Your task to perform on an android device: find which apps use the phone's location Image 0: 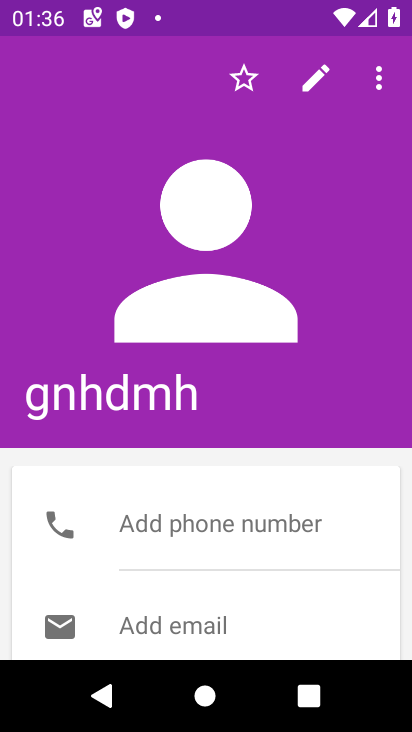
Step 0: press home button
Your task to perform on an android device: find which apps use the phone's location Image 1: 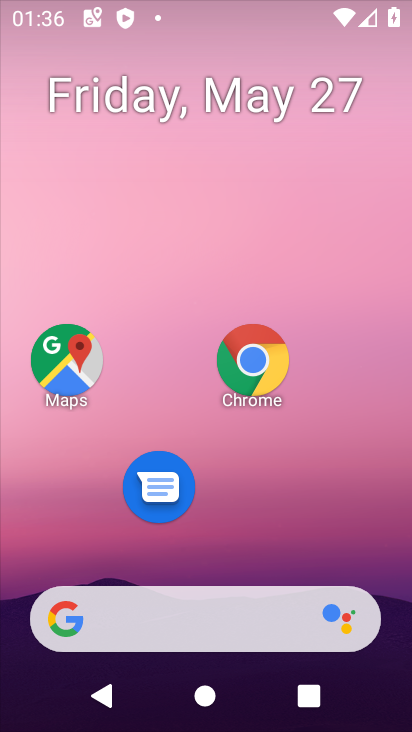
Step 1: drag from (239, 434) to (242, 91)
Your task to perform on an android device: find which apps use the phone's location Image 2: 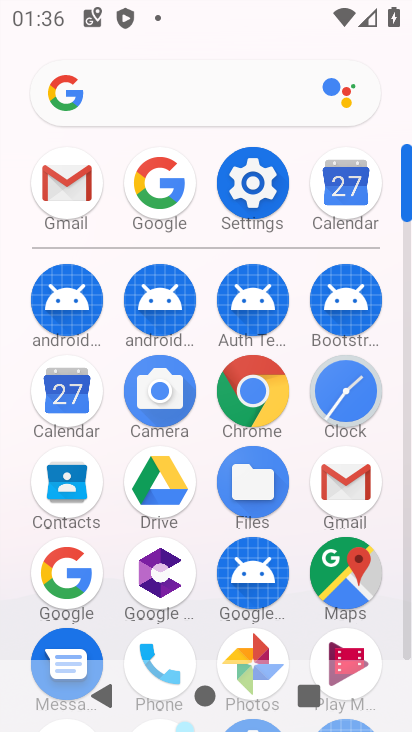
Step 2: click (256, 190)
Your task to perform on an android device: find which apps use the phone's location Image 3: 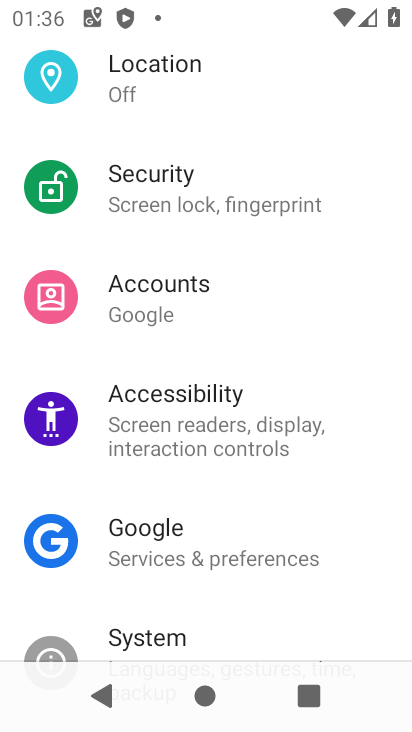
Step 3: click (160, 87)
Your task to perform on an android device: find which apps use the phone's location Image 4: 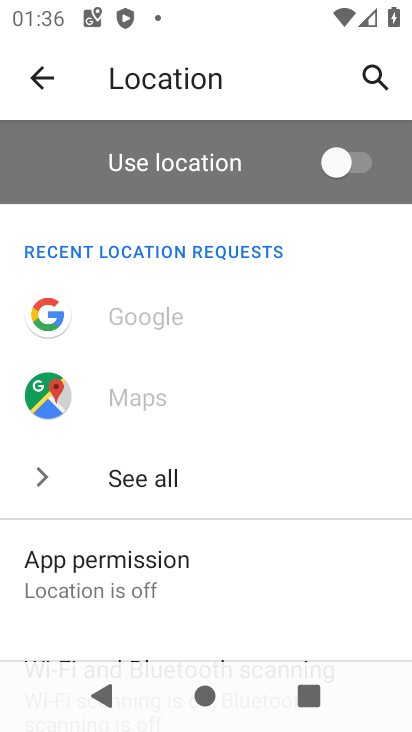
Step 4: drag from (282, 522) to (249, 251)
Your task to perform on an android device: find which apps use the phone's location Image 5: 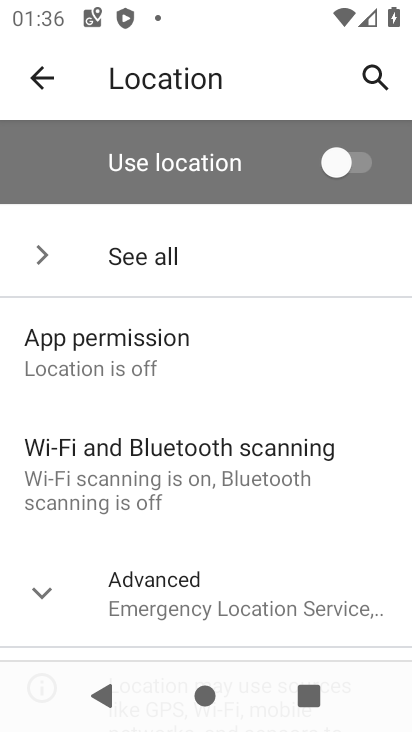
Step 5: click (153, 356)
Your task to perform on an android device: find which apps use the phone's location Image 6: 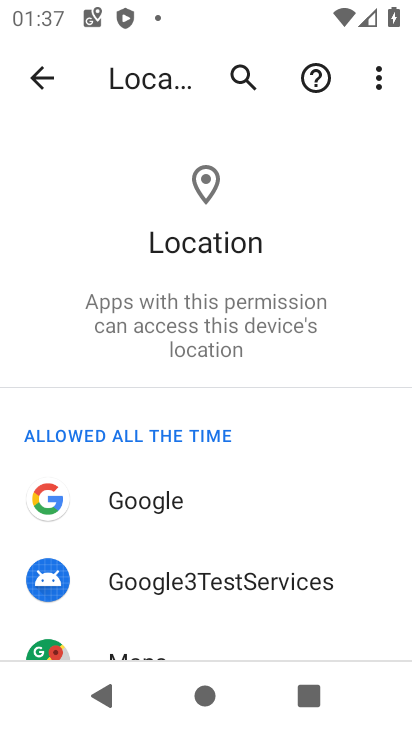
Step 6: task complete